Your task to perform on an android device: Open accessibility settings Image 0: 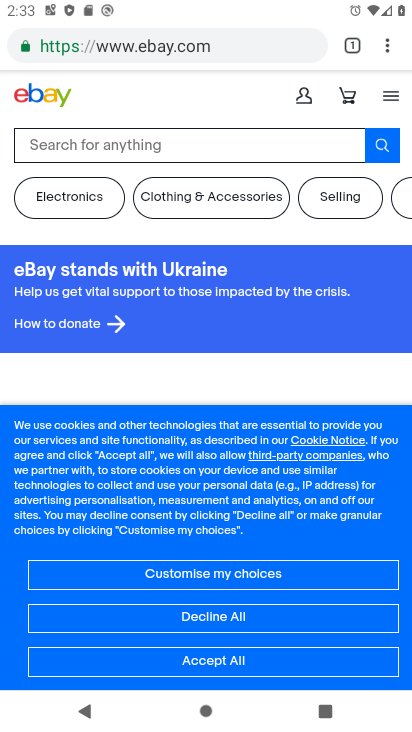
Step 0: press home button
Your task to perform on an android device: Open accessibility settings Image 1: 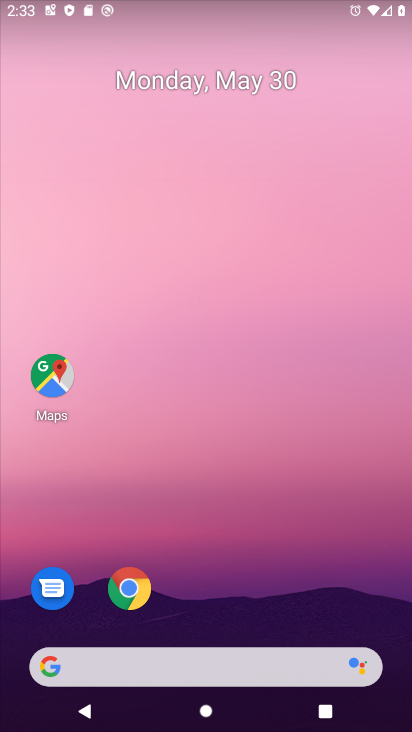
Step 1: drag from (280, 562) to (236, 0)
Your task to perform on an android device: Open accessibility settings Image 2: 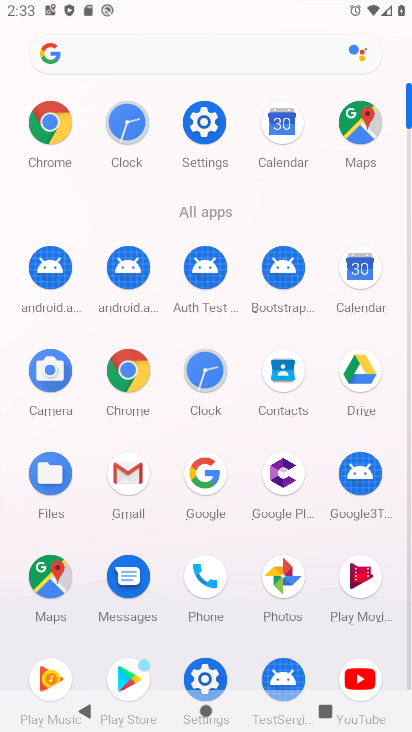
Step 2: click (203, 123)
Your task to perform on an android device: Open accessibility settings Image 3: 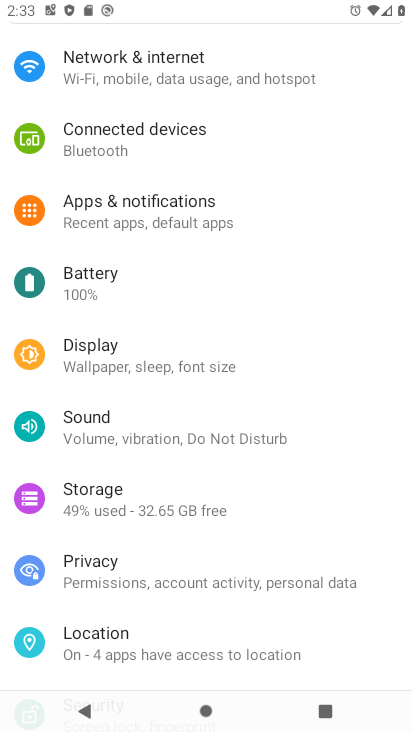
Step 3: drag from (221, 603) to (175, 141)
Your task to perform on an android device: Open accessibility settings Image 4: 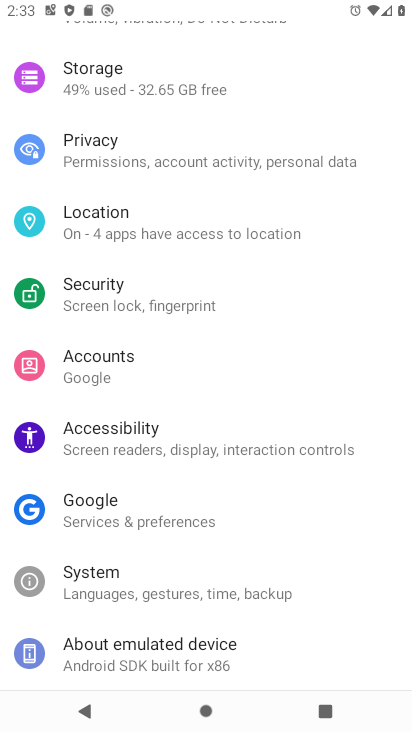
Step 4: click (149, 438)
Your task to perform on an android device: Open accessibility settings Image 5: 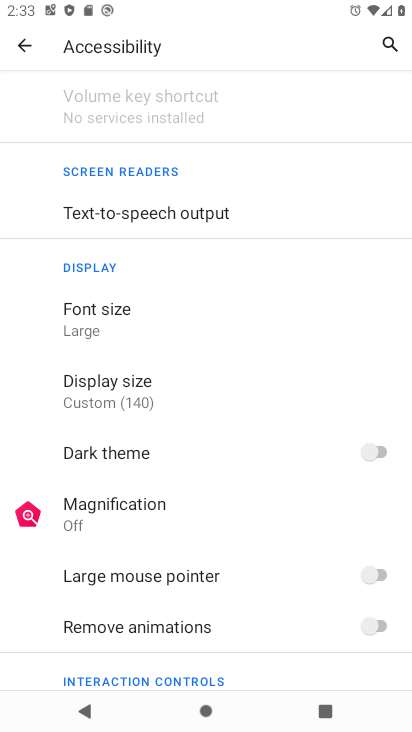
Step 5: task complete